Your task to perform on an android device: turn on notifications settings in the gmail app Image 0: 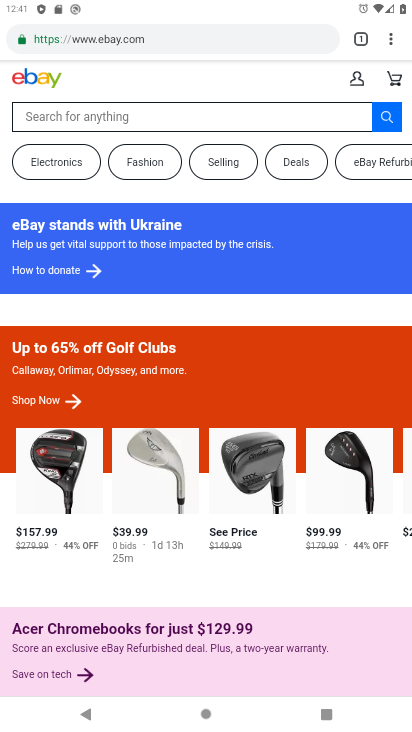
Step 0: press home button
Your task to perform on an android device: turn on notifications settings in the gmail app Image 1: 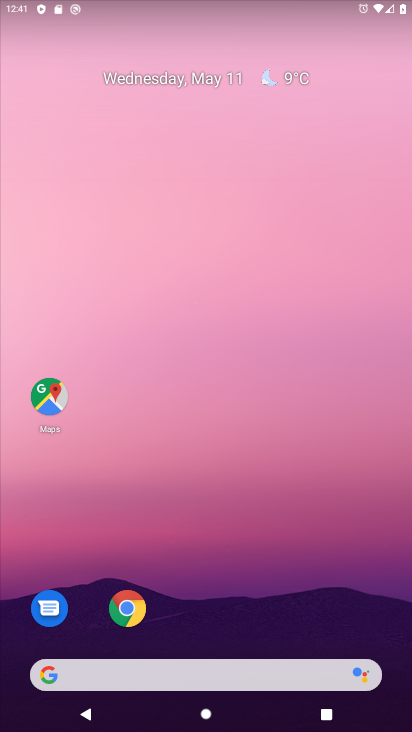
Step 1: drag from (188, 471) to (159, 327)
Your task to perform on an android device: turn on notifications settings in the gmail app Image 2: 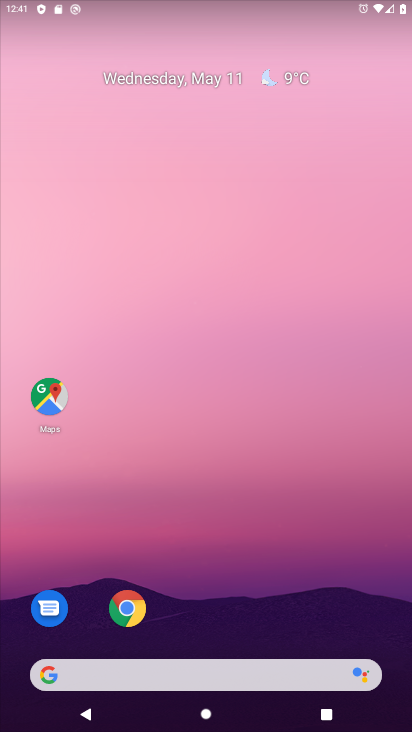
Step 2: drag from (261, 566) to (282, 97)
Your task to perform on an android device: turn on notifications settings in the gmail app Image 3: 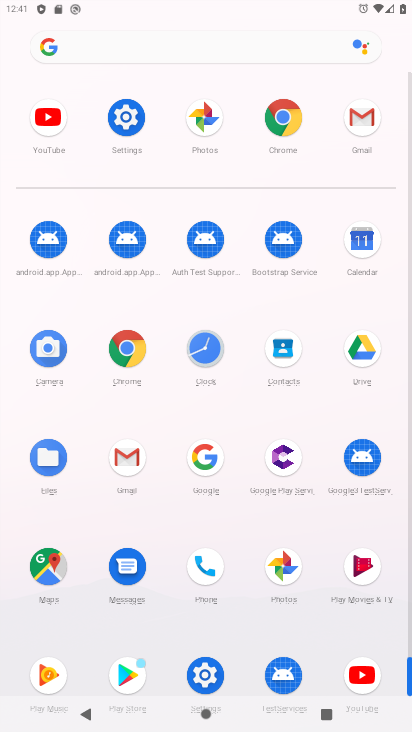
Step 3: click (139, 461)
Your task to perform on an android device: turn on notifications settings in the gmail app Image 4: 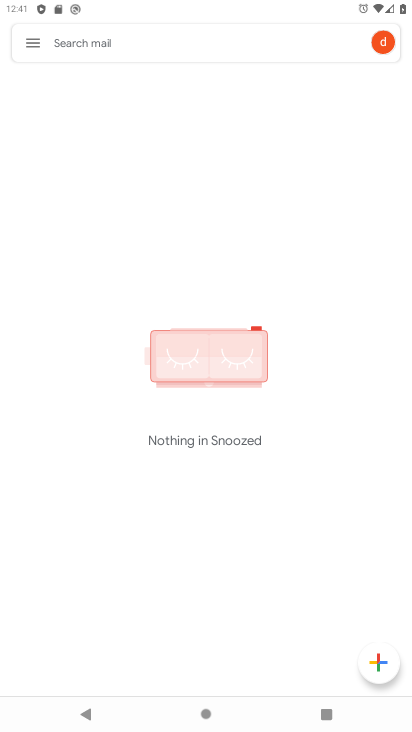
Step 4: click (34, 37)
Your task to perform on an android device: turn on notifications settings in the gmail app Image 5: 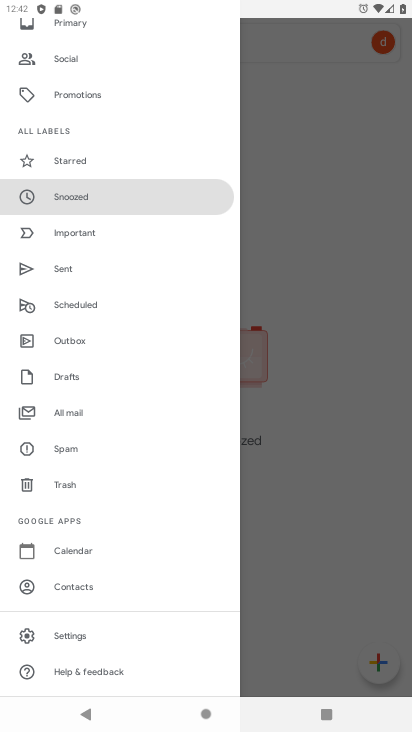
Step 5: drag from (105, 493) to (113, 143)
Your task to perform on an android device: turn on notifications settings in the gmail app Image 6: 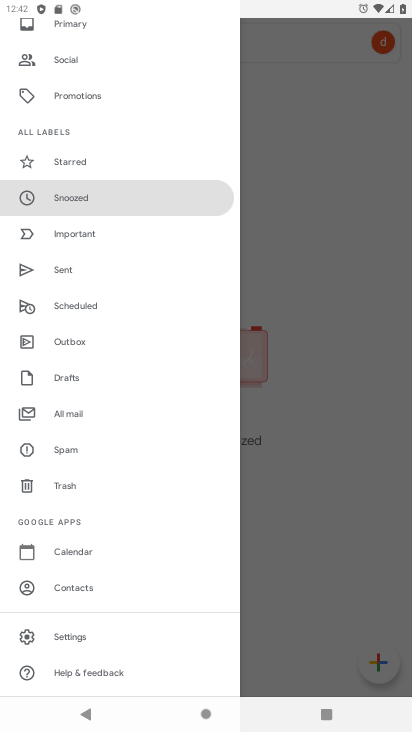
Step 6: click (80, 640)
Your task to perform on an android device: turn on notifications settings in the gmail app Image 7: 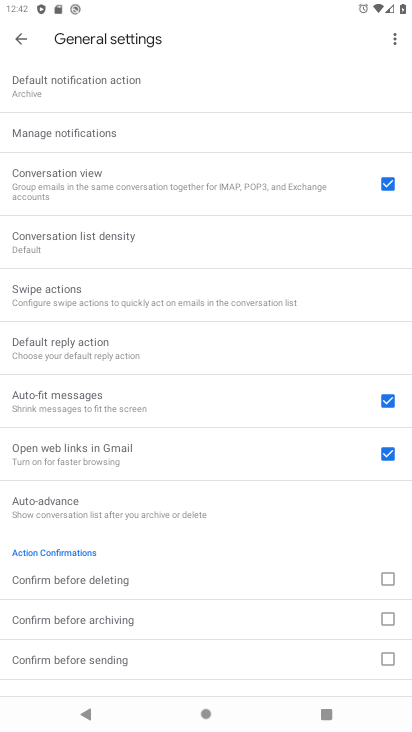
Step 7: click (147, 132)
Your task to perform on an android device: turn on notifications settings in the gmail app Image 8: 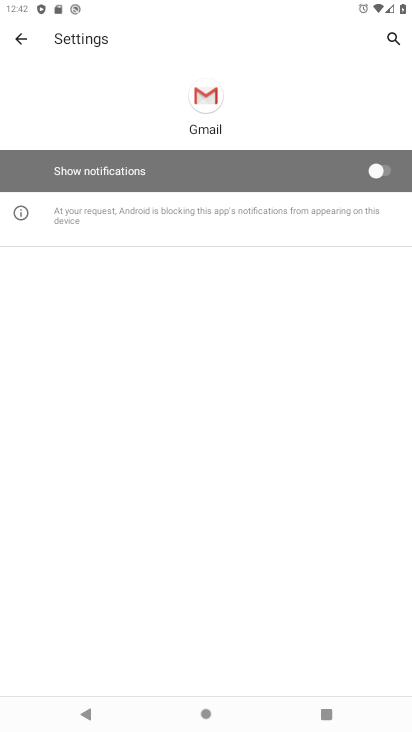
Step 8: click (385, 168)
Your task to perform on an android device: turn on notifications settings in the gmail app Image 9: 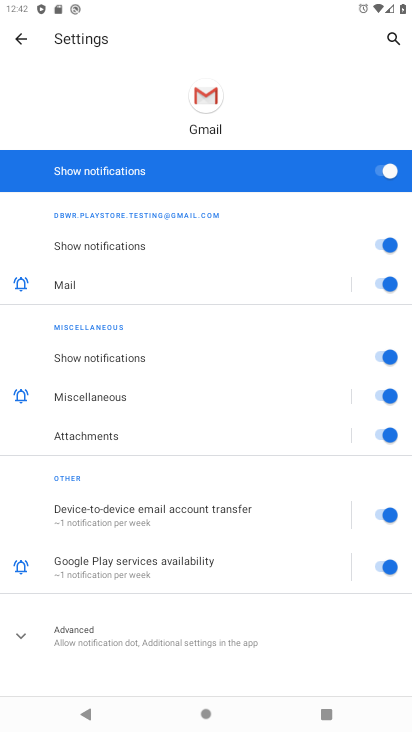
Step 9: task complete